Your task to perform on an android device: Open Youtube and go to the subscriptions tab Image 0: 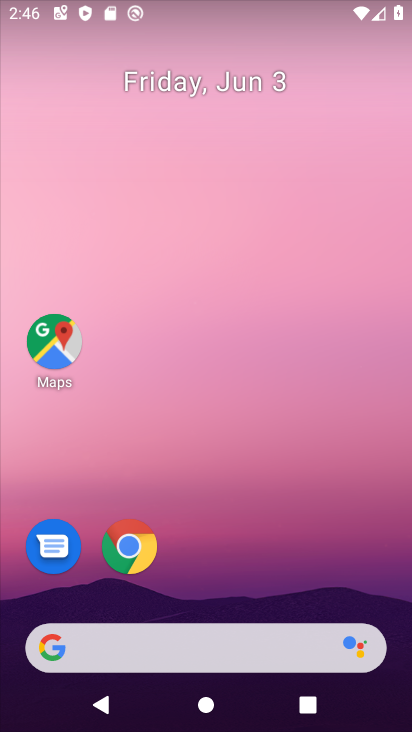
Step 0: drag from (331, 558) to (331, 74)
Your task to perform on an android device: Open Youtube and go to the subscriptions tab Image 1: 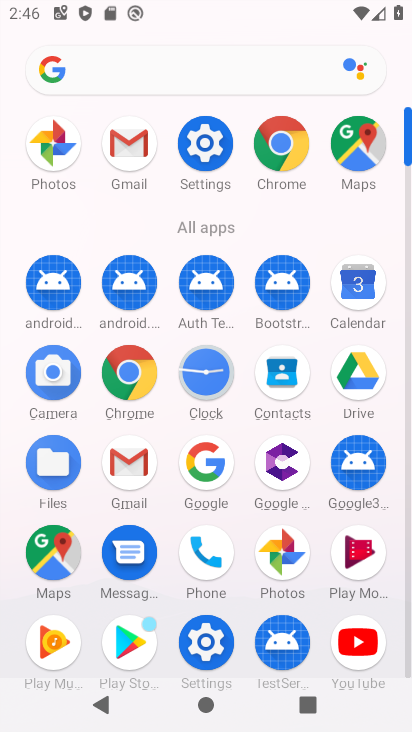
Step 1: click (350, 634)
Your task to perform on an android device: Open Youtube and go to the subscriptions tab Image 2: 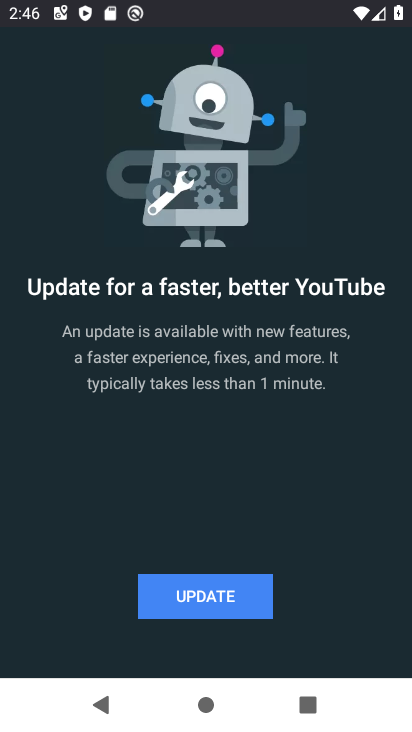
Step 2: click (244, 598)
Your task to perform on an android device: Open Youtube and go to the subscriptions tab Image 3: 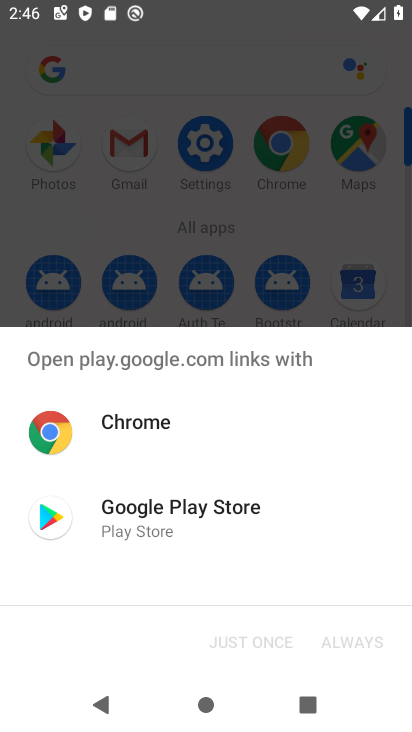
Step 3: click (165, 499)
Your task to perform on an android device: Open Youtube and go to the subscriptions tab Image 4: 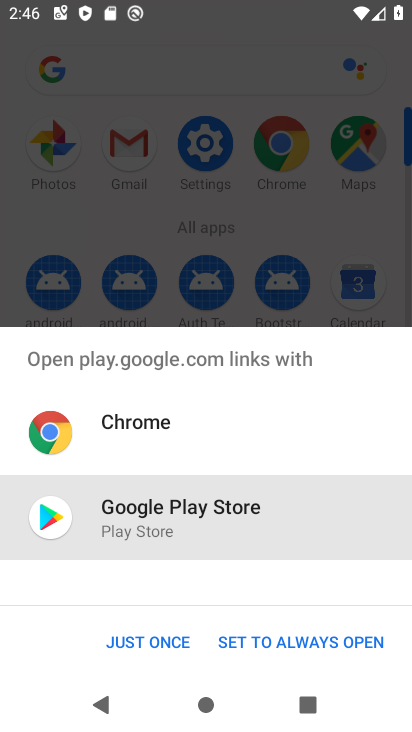
Step 4: click (124, 649)
Your task to perform on an android device: Open Youtube and go to the subscriptions tab Image 5: 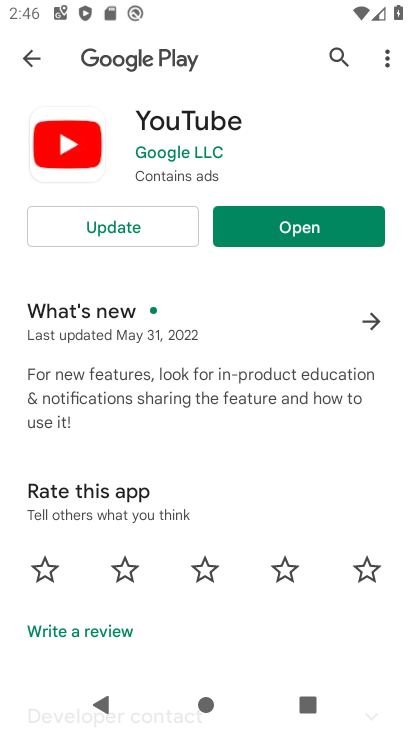
Step 5: click (156, 227)
Your task to perform on an android device: Open Youtube and go to the subscriptions tab Image 6: 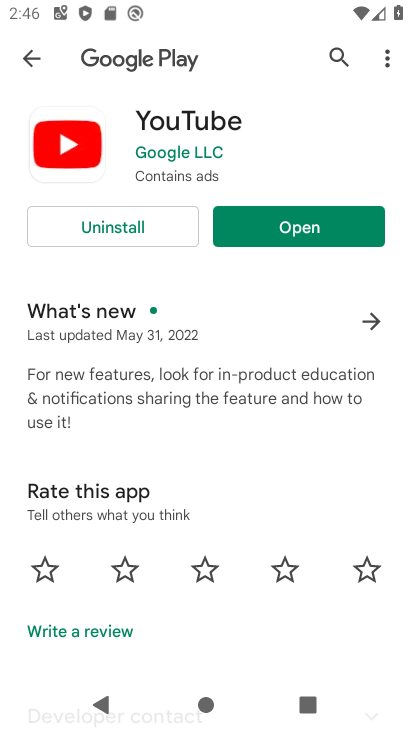
Step 6: click (300, 218)
Your task to perform on an android device: Open Youtube and go to the subscriptions tab Image 7: 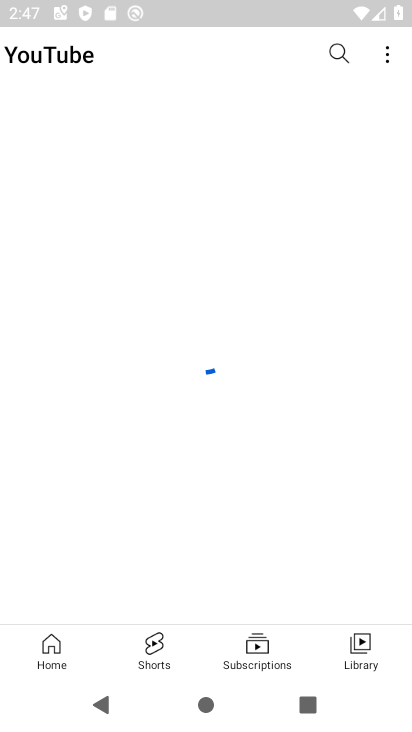
Step 7: click (261, 629)
Your task to perform on an android device: Open Youtube and go to the subscriptions tab Image 8: 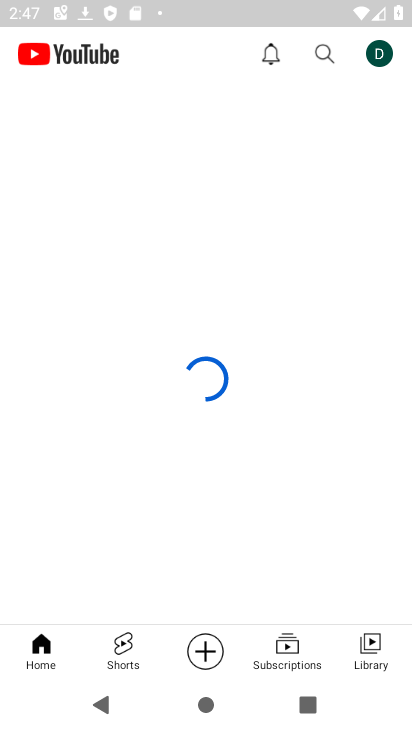
Step 8: click (284, 642)
Your task to perform on an android device: Open Youtube and go to the subscriptions tab Image 9: 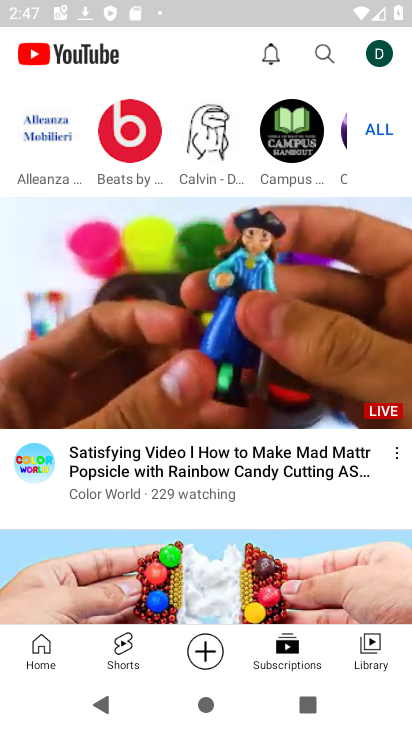
Step 9: task complete